Your task to perform on an android device: visit the assistant section in the google photos Image 0: 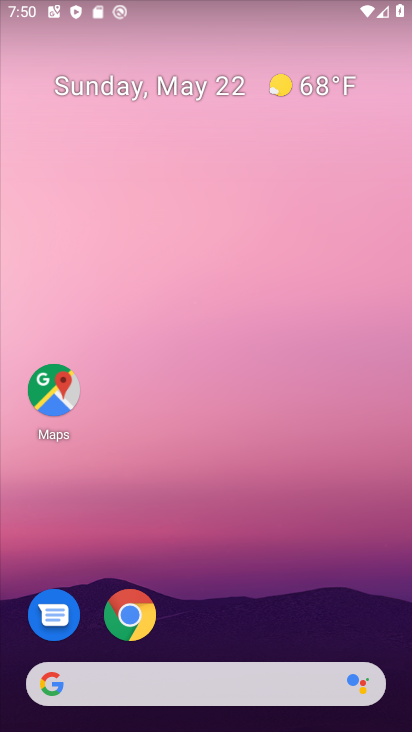
Step 0: drag from (194, 675) to (143, 2)
Your task to perform on an android device: visit the assistant section in the google photos Image 1: 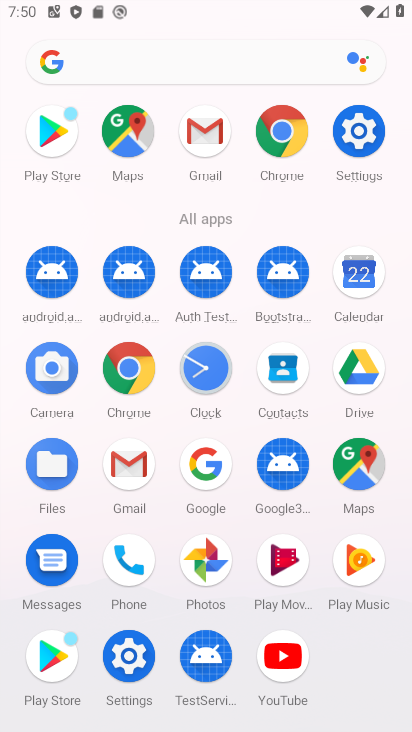
Step 1: click (199, 552)
Your task to perform on an android device: visit the assistant section in the google photos Image 2: 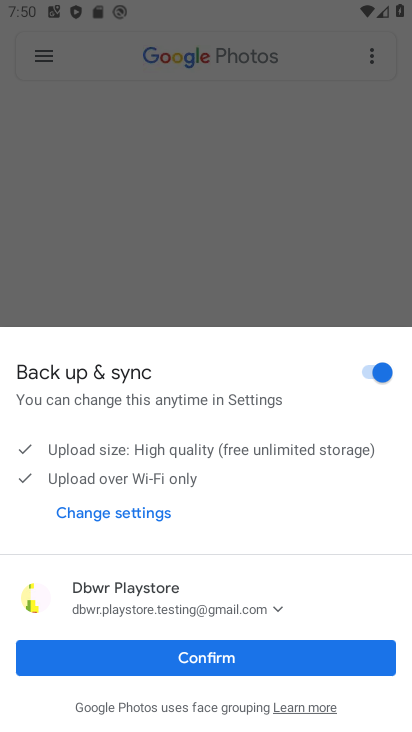
Step 2: click (372, 460)
Your task to perform on an android device: visit the assistant section in the google photos Image 3: 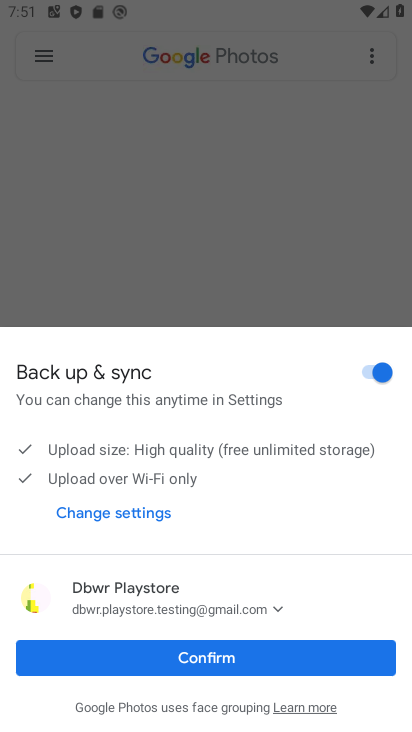
Step 3: click (299, 668)
Your task to perform on an android device: visit the assistant section in the google photos Image 4: 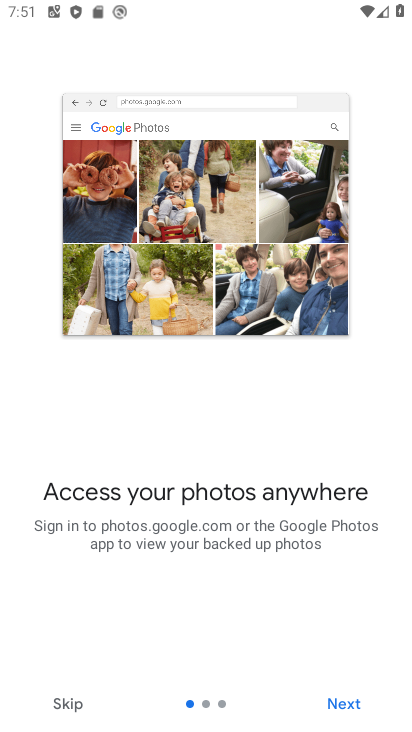
Step 4: click (339, 698)
Your task to perform on an android device: visit the assistant section in the google photos Image 5: 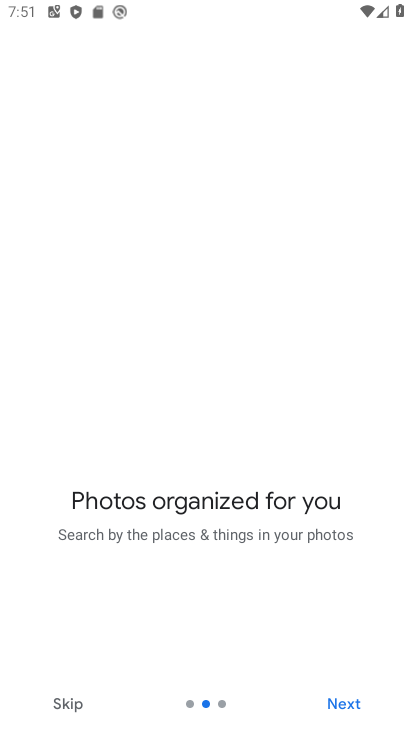
Step 5: click (339, 707)
Your task to perform on an android device: visit the assistant section in the google photos Image 6: 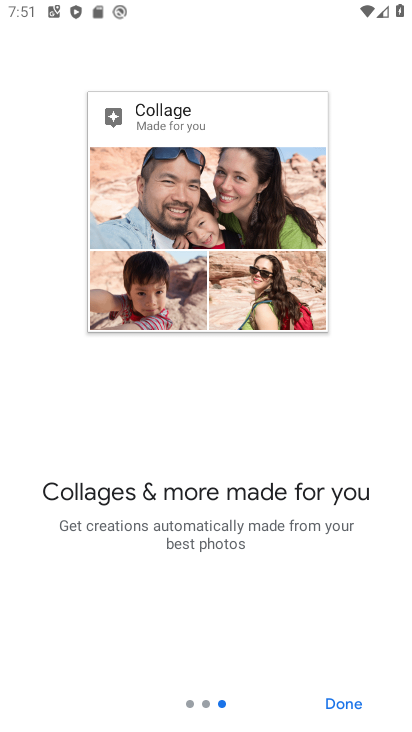
Step 6: click (344, 708)
Your task to perform on an android device: visit the assistant section in the google photos Image 7: 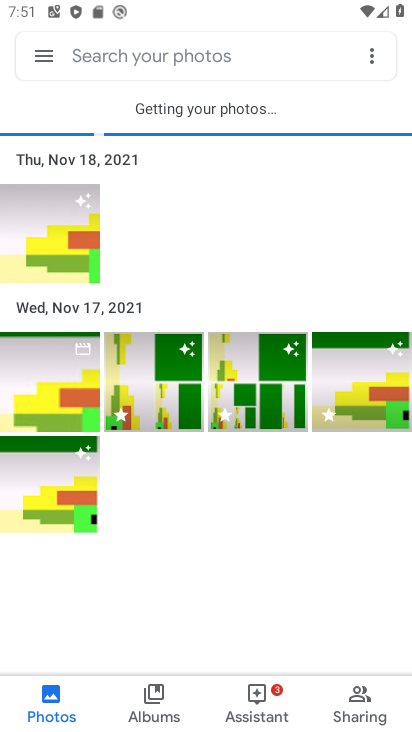
Step 7: click (275, 680)
Your task to perform on an android device: visit the assistant section in the google photos Image 8: 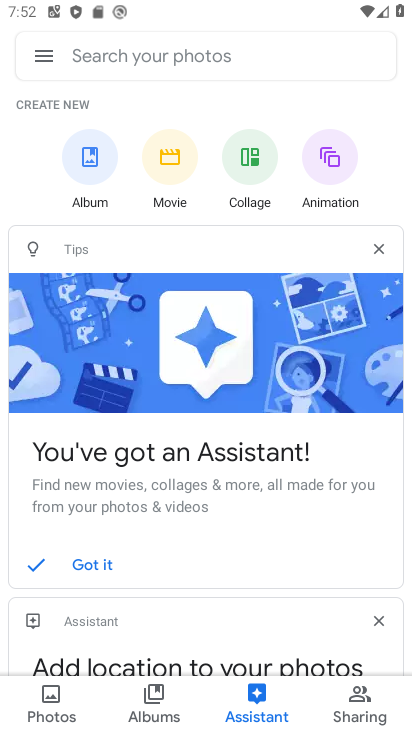
Step 8: task complete